Your task to perform on an android device: empty trash in the gmail app Image 0: 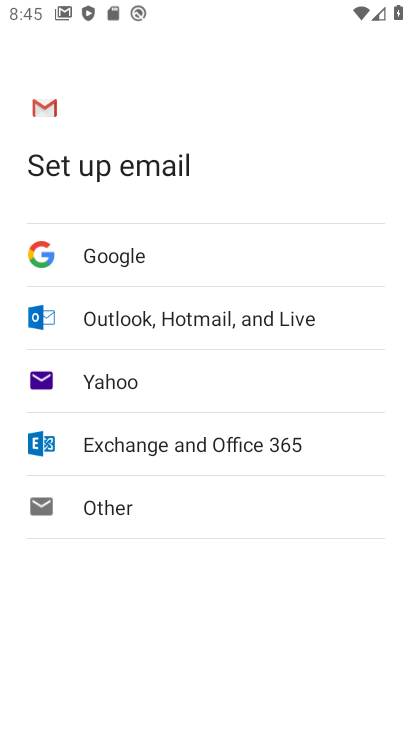
Step 0: press home button
Your task to perform on an android device: empty trash in the gmail app Image 1: 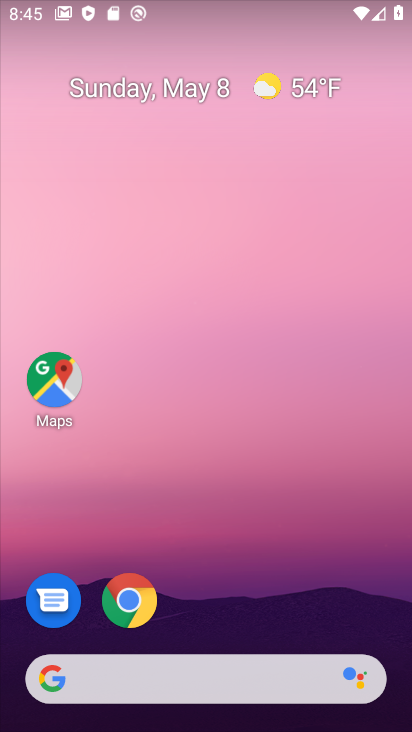
Step 1: drag from (201, 629) to (211, 209)
Your task to perform on an android device: empty trash in the gmail app Image 2: 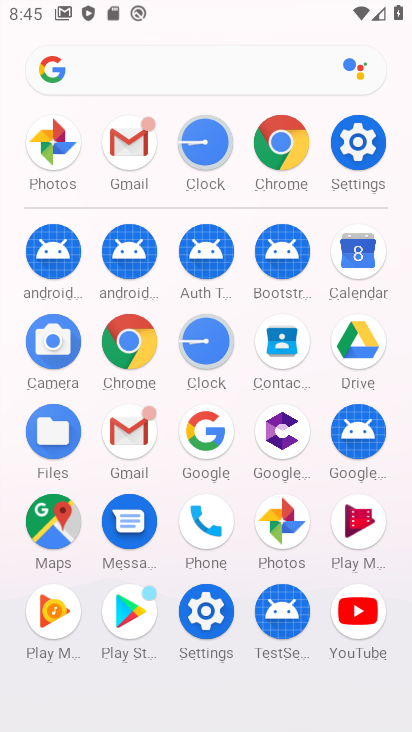
Step 2: click (119, 152)
Your task to perform on an android device: empty trash in the gmail app Image 3: 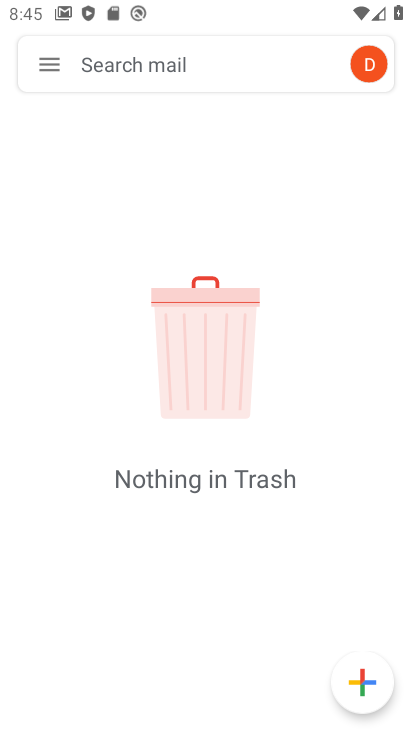
Step 3: task complete